Your task to perform on an android device: clear all cookies in the chrome app Image 0: 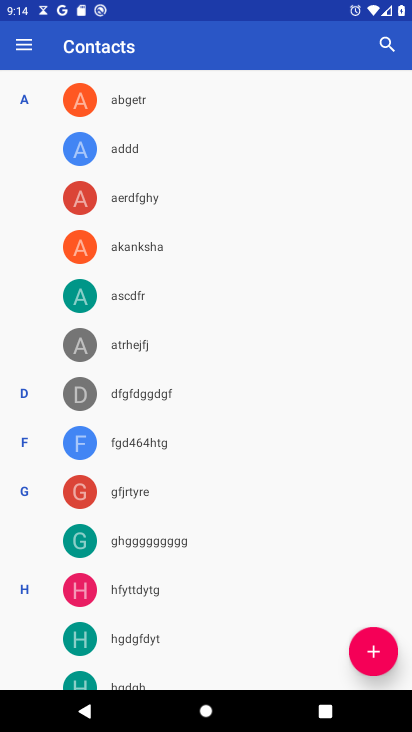
Step 0: press home button
Your task to perform on an android device: clear all cookies in the chrome app Image 1: 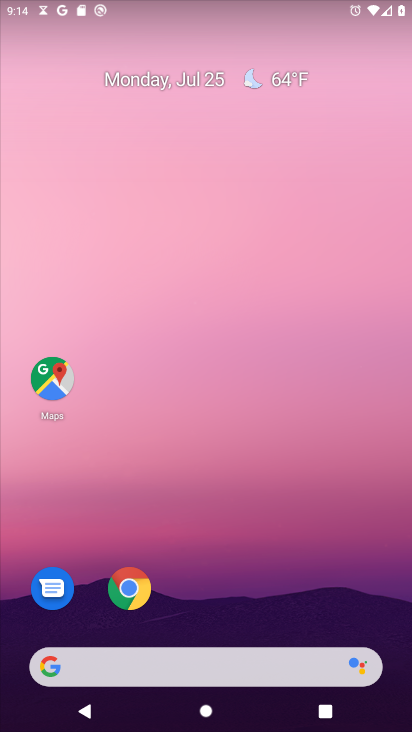
Step 1: click (123, 598)
Your task to perform on an android device: clear all cookies in the chrome app Image 2: 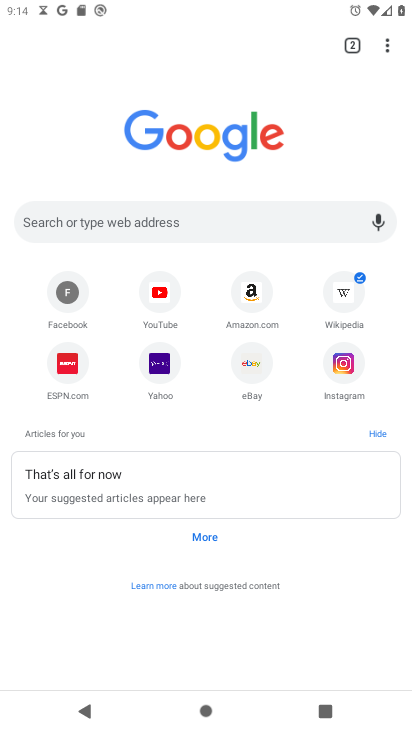
Step 2: task complete